Your task to perform on an android device: clear all cookies in the chrome app Image 0: 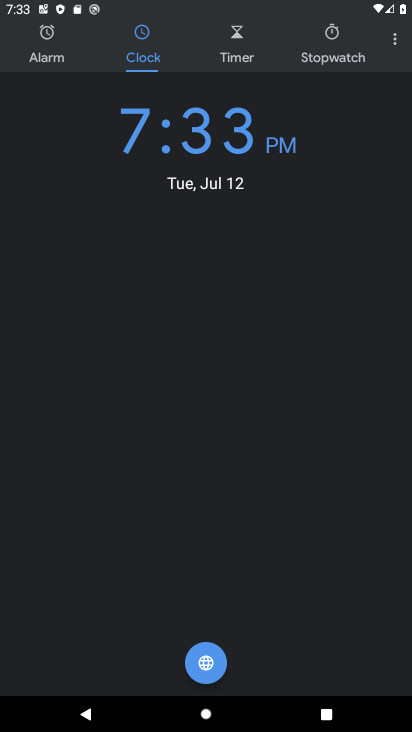
Step 0: press home button
Your task to perform on an android device: clear all cookies in the chrome app Image 1: 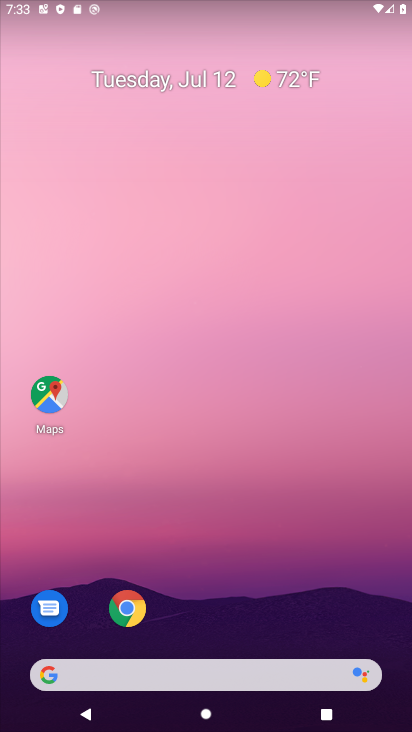
Step 1: drag from (365, 633) to (381, 110)
Your task to perform on an android device: clear all cookies in the chrome app Image 2: 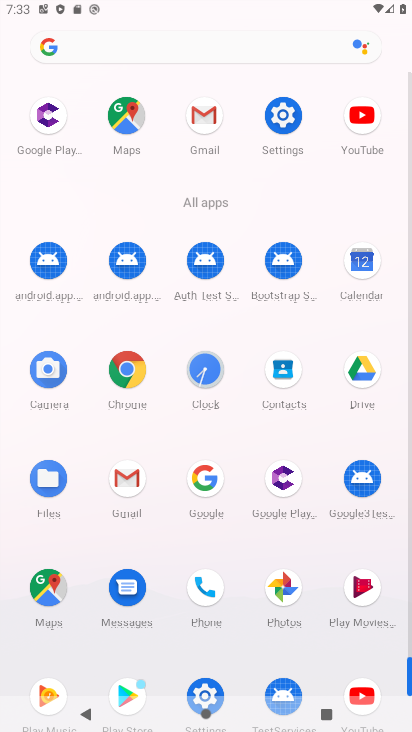
Step 2: click (130, 370)
Your task to perform on an android device: clear all cookies in the chrome app Image 3: 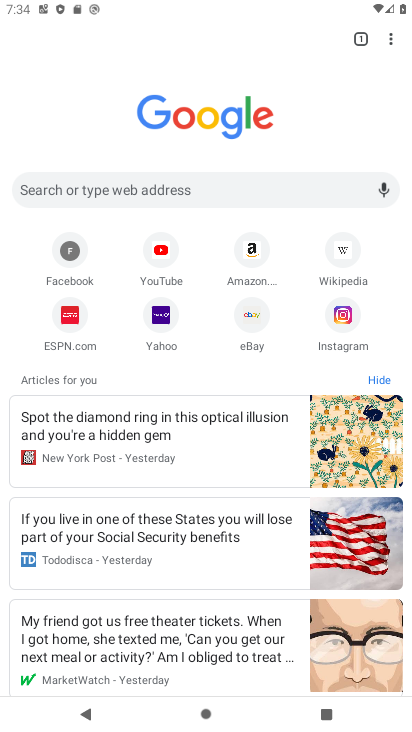
Step 3: click (392, 43)
Your task to perform on an android device: clear all cookies in the chrome app Image 4: 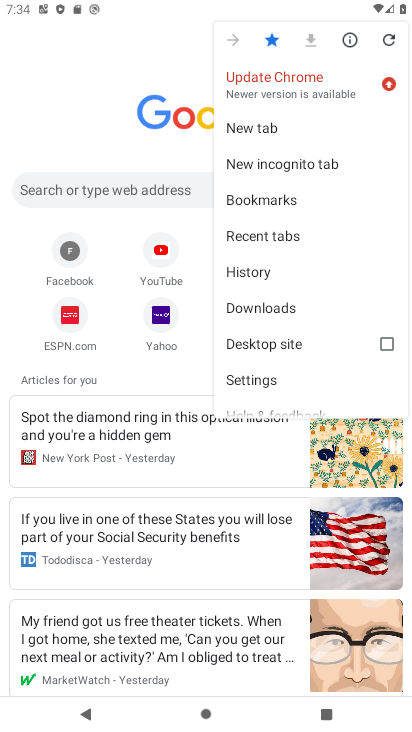
Step 4: click (286, 382)
Your task to perform on an android device: clear all cookies in the chrome app Image 5: 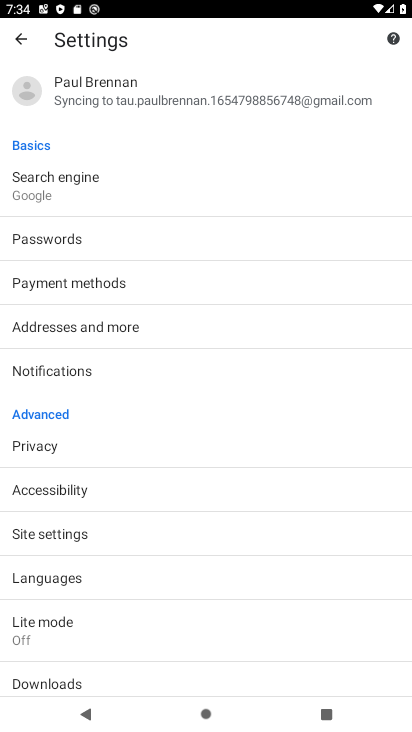
Step 5: drag from (285, 448) to (295, 347)
Your task to perform on an android device: clear all cookies in the chrome app Image 6: 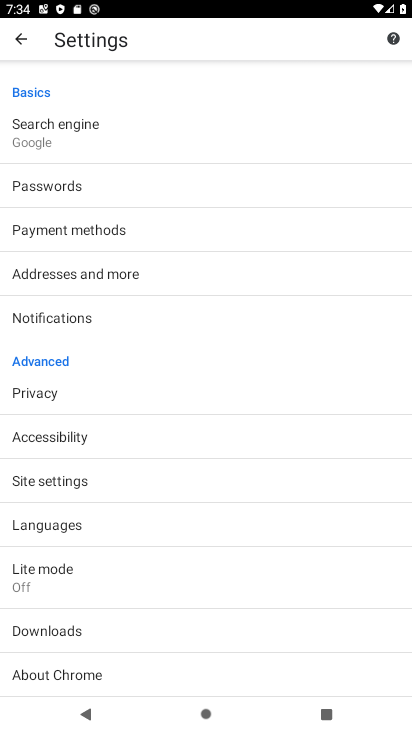
Step 6: drag from (309, 441) to (305, 308)
Your task to perform on an android device: clear all cookies in the chrome app Image 7: 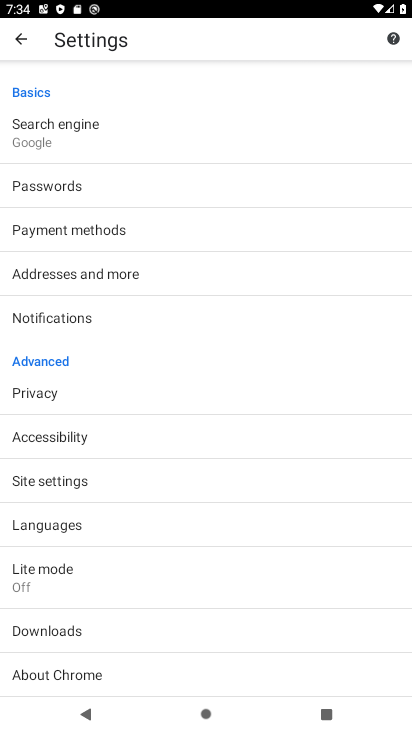
Step 7: drag from (311, 238) to (312, 446)
Your task to perform on an android device: clear all cookies in the chrome app Image 8: 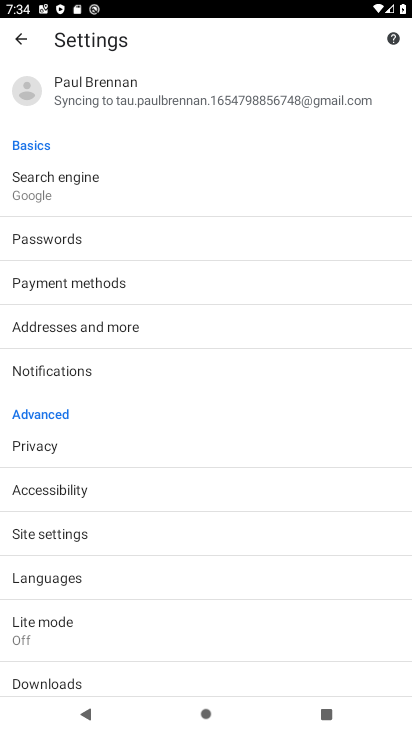
Step 8: click (130, 453)
Your task to perform on an android device: clear all cookies in the chrome app Image 9: 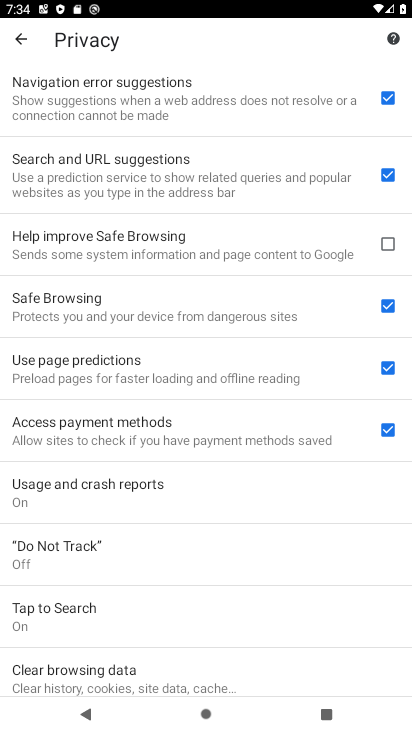
Step 9: drag from (310, 492) to (316, 382)
Your task to perform on an android device: clear all cookies in the chrome app Image 10: 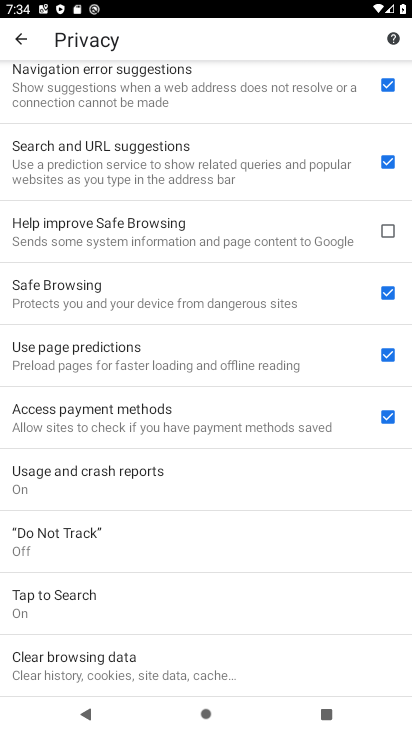
Step 10: click (236, 666)
Your task to perform on an android device: clear all cookies in the chrome app Image 11: 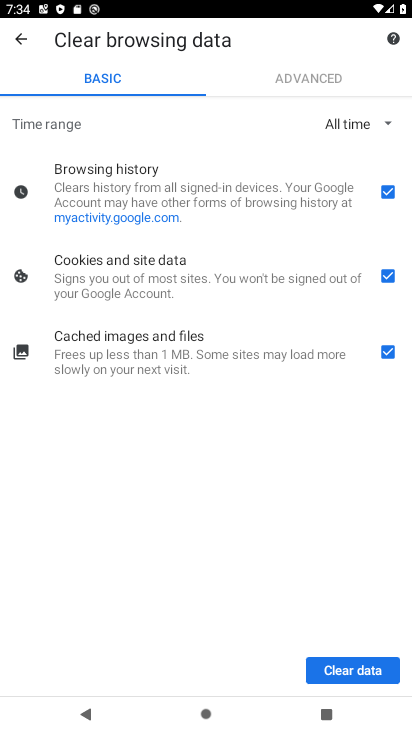
Step 11: click (352, 668)
Your task to perform on an android device: clear all cookies in the chrome app Image 12: 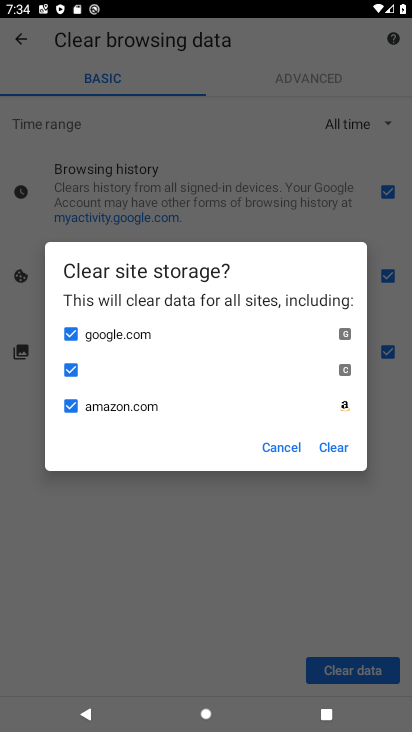
Step 12: click (337, 444)
Your task to perform on an android device: clear all cookies in the chrome app Image 13: 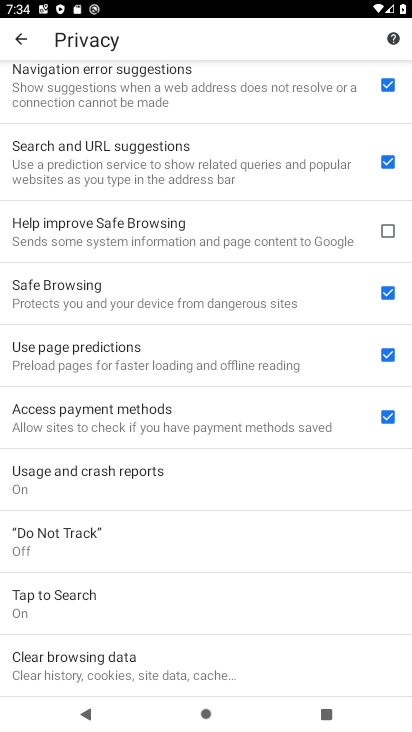
Step 13: task complete